Your task to perform on an android device: Go to ESPN.com Image 0: 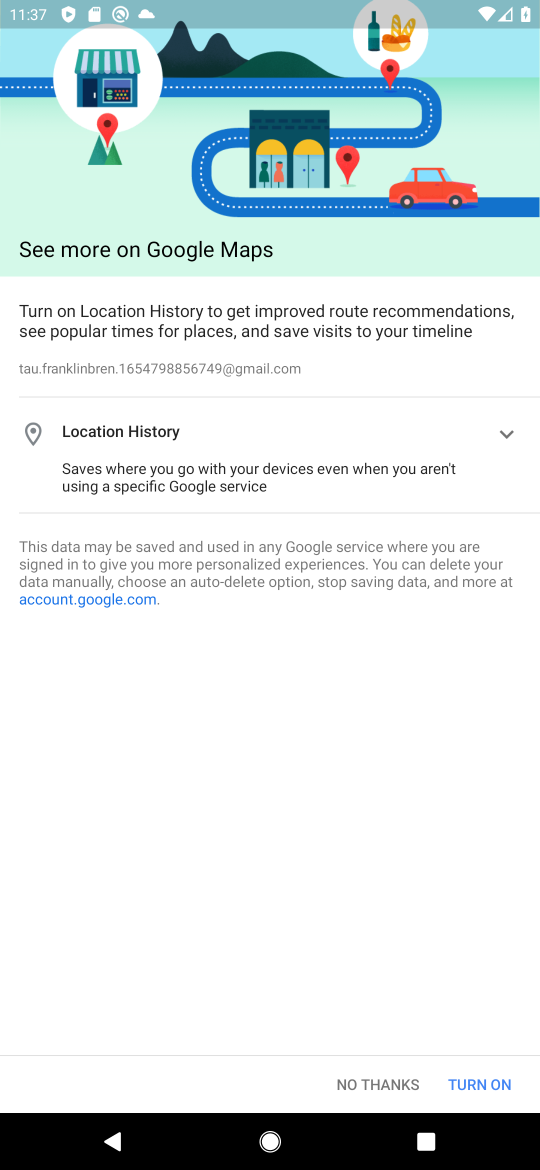
Step 0: press home button
Your task to perform on an android device: Go to ESPN.com Image 1: 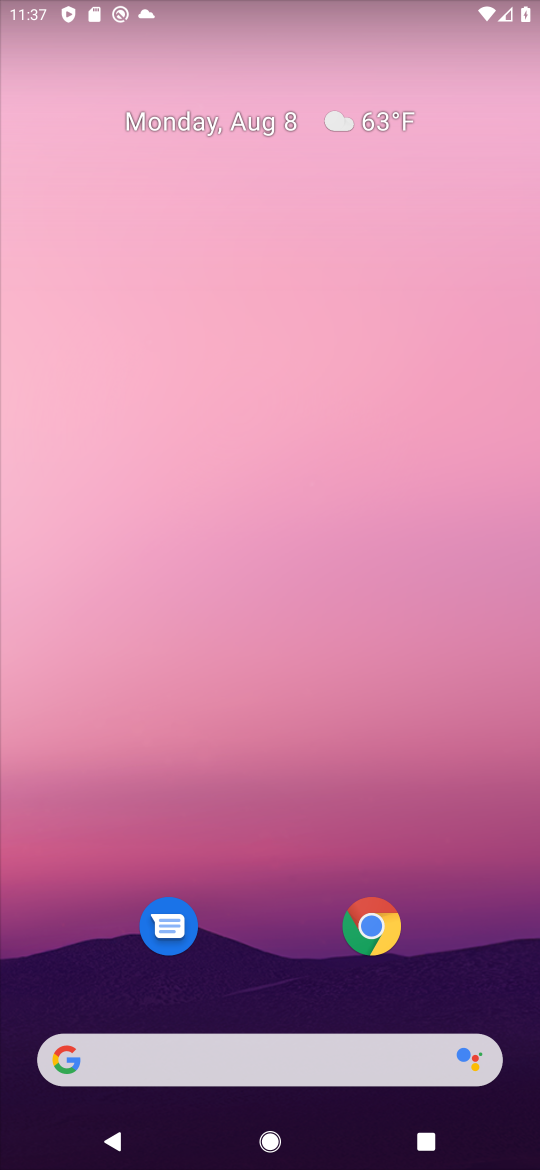
Step 1: click (368, 924)
Your task to perform on an android device: Go to ESPN.com Image 2: 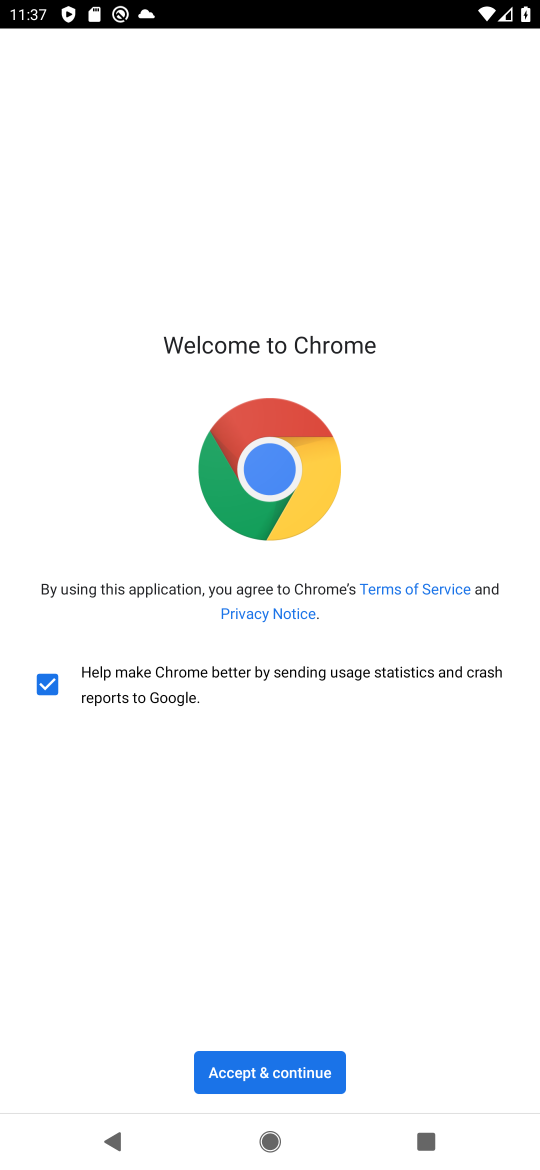
Step 2: click (292, 1056)
Your task to perform on an android device: Go to ESPN.com Image 3: 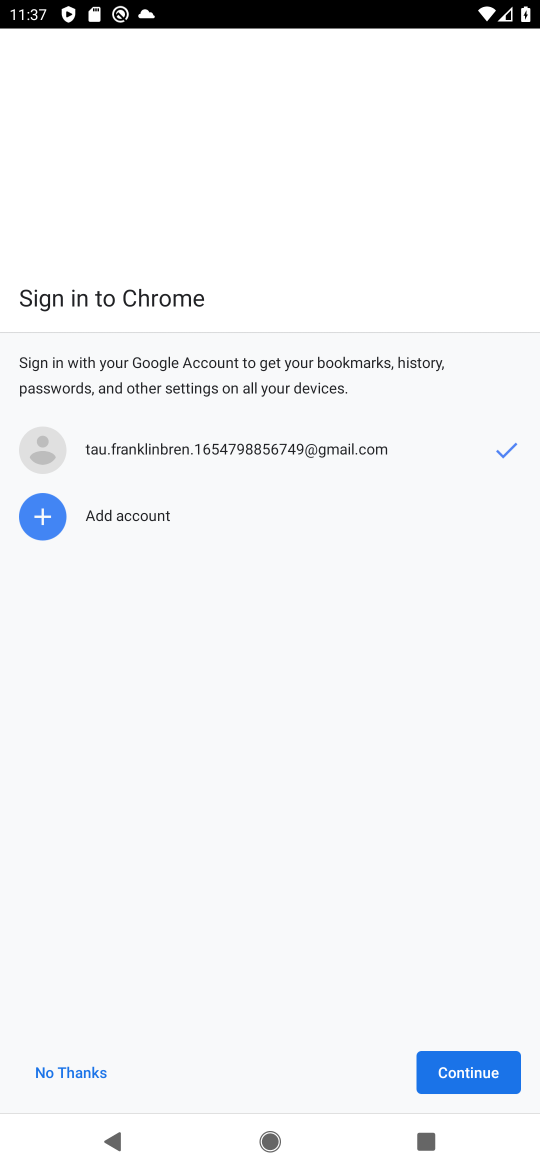
Step 3: click (38, 1073)
Your task to perform on an android device: Go to ESPN.com Image 4: 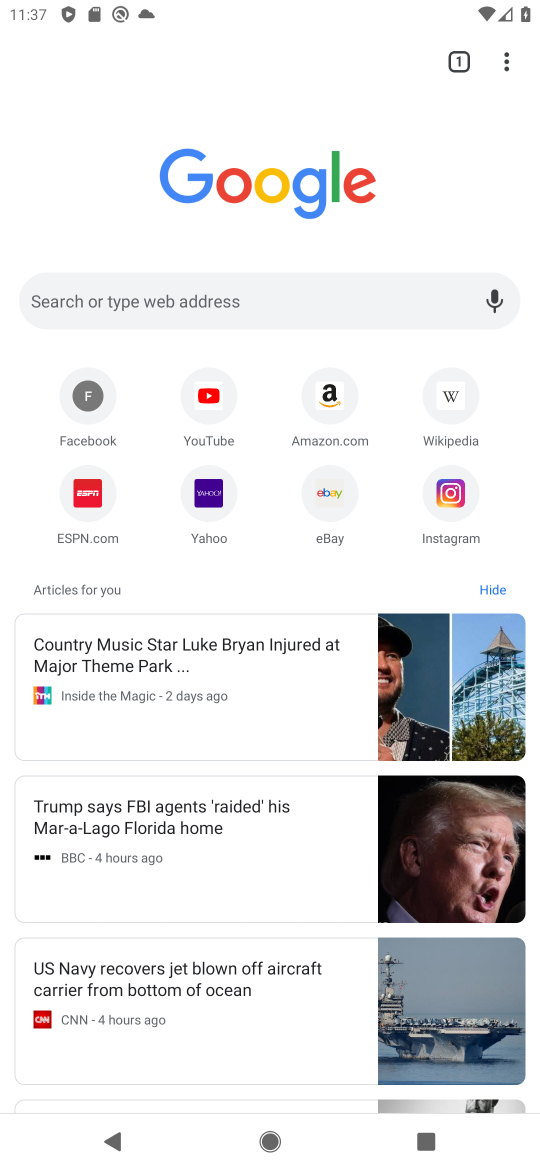
Step 4: click (95, 501)
Your task to perform on an android device: Go to ESPN.com Image 5: 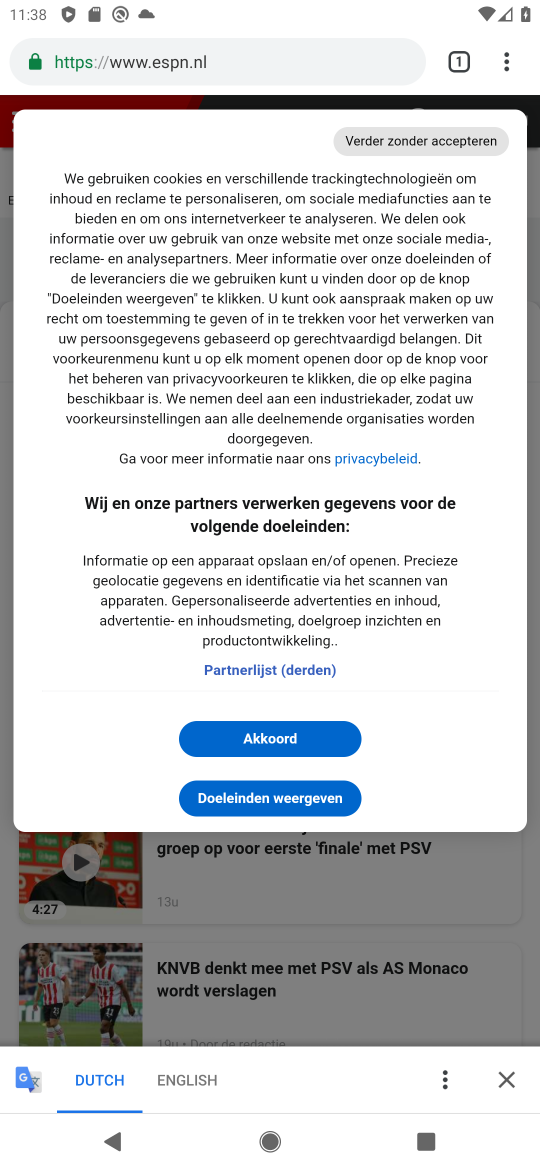
Step 5: task complete